Your task to perform on an android device: turn on sleep mode Image 0: 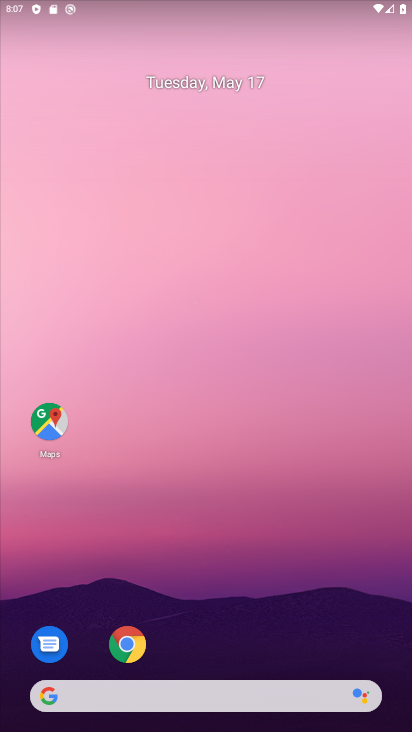
Step 0: drag from (135, 665) to (247, 143)
Your task to perform on an android device: turn on sleep mode Image 1: 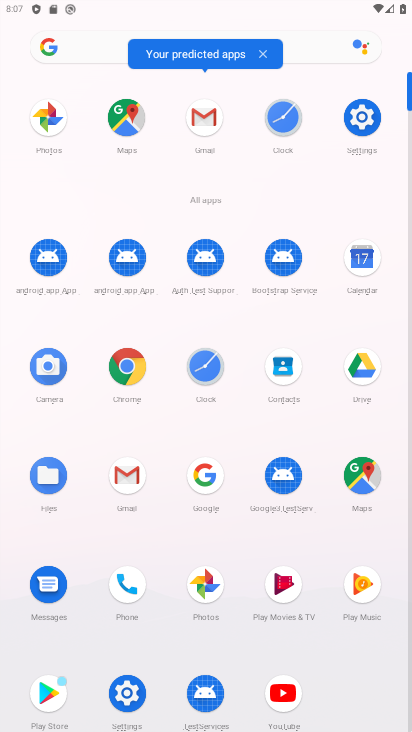
Step 1: click (116, 690)
Your task to perform on an android device: turn on sleep mode Image 2: 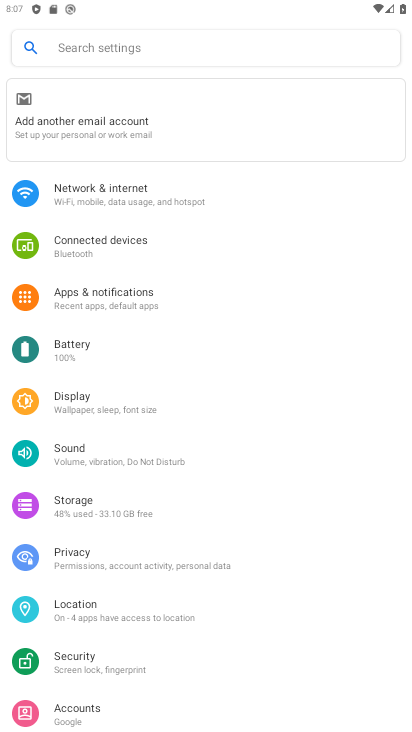
Step 2: click (149, 414)
Your task to perform on an android device: turn on sleep mode Image 3: 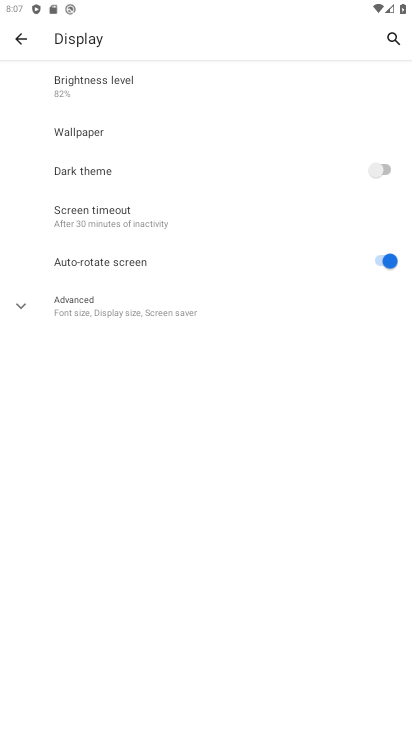
Step 3: task complete